Your task to perform on an android device: Go to Maps Image 0: 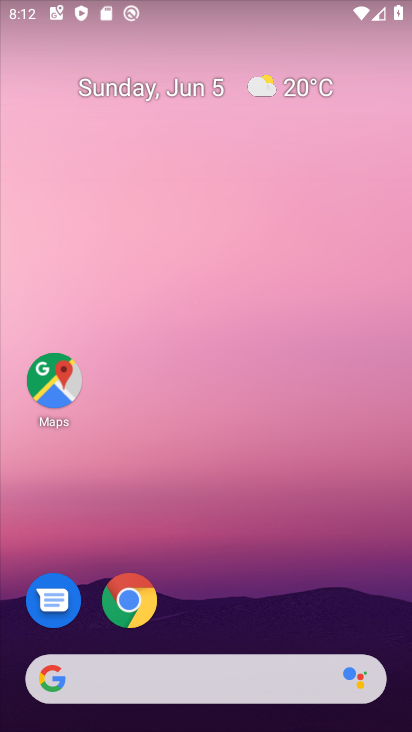
Step 0: click (69, 396)
Your task to perform on an android device: Go to Maps Image 1: 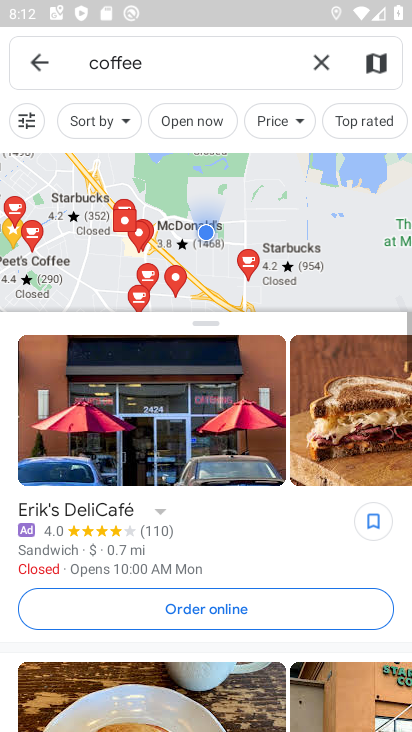
Step 1: click (325, 52)
Your task to perform on an android device: Go to Maps Image 2: 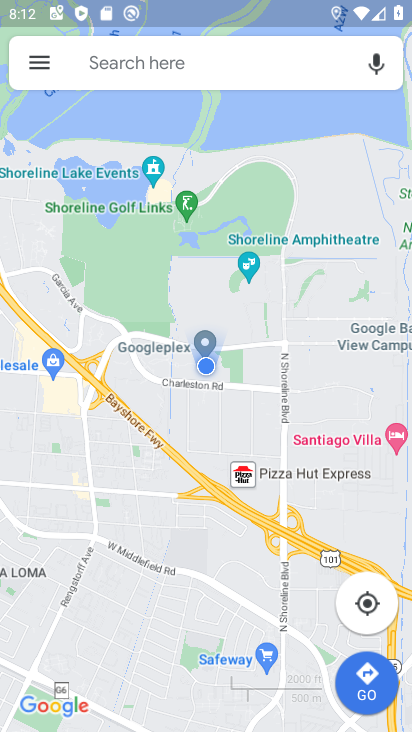
Step 2: task complete